Your task to perform on an android device: Open the web browser Image 0: 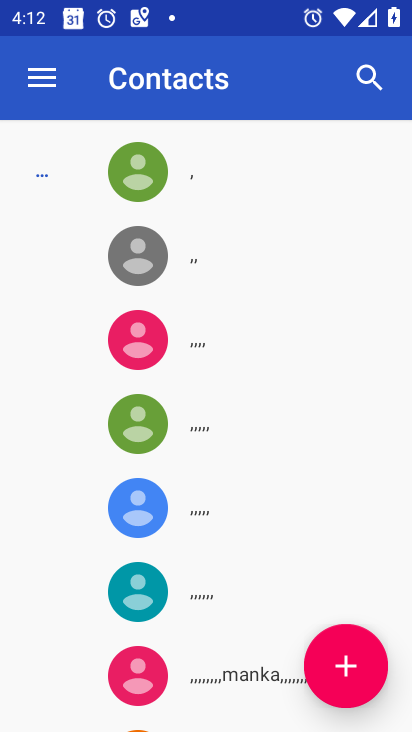
Step 0: press home button
Your task to perform on an android device: Open the web browser Image 1: 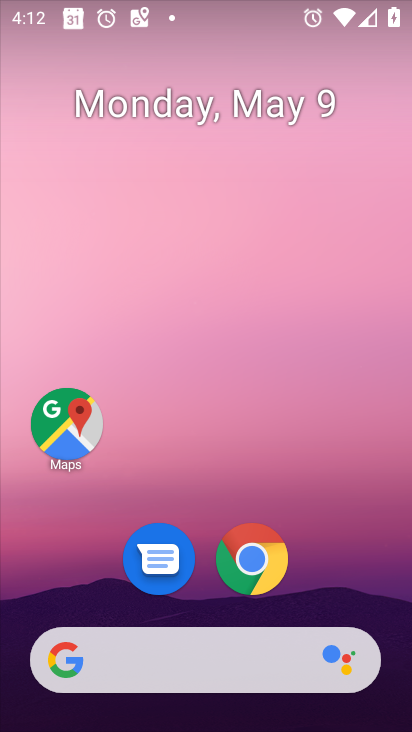
Step 1: click (260, 571)
Your task to perform on an android device: Open the web browser Image 2: 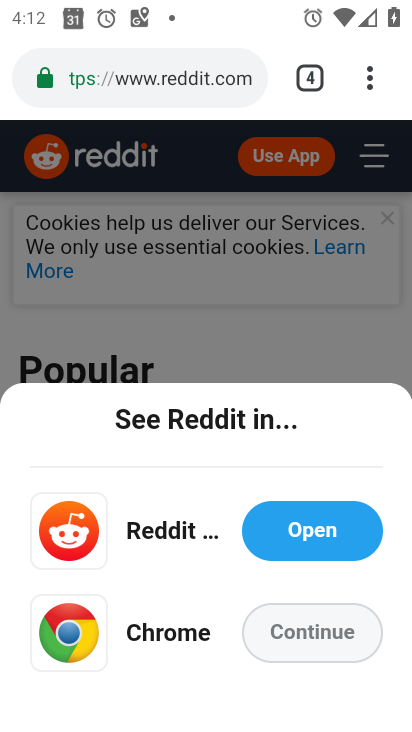
Step 2: task complete